Your task to perform on an android device: Search for pizza restaurants on Maps Image 0: 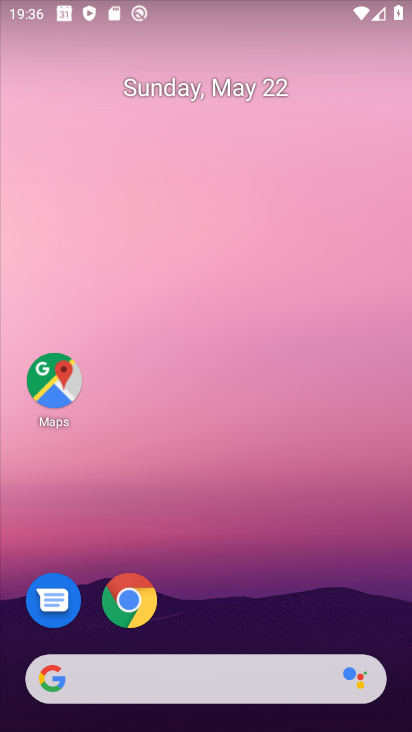
Step 0: drag from (230, 498) to (247, 15)
Your task to perform on an android device: Search for pizza restaurants on Maps Image 1: 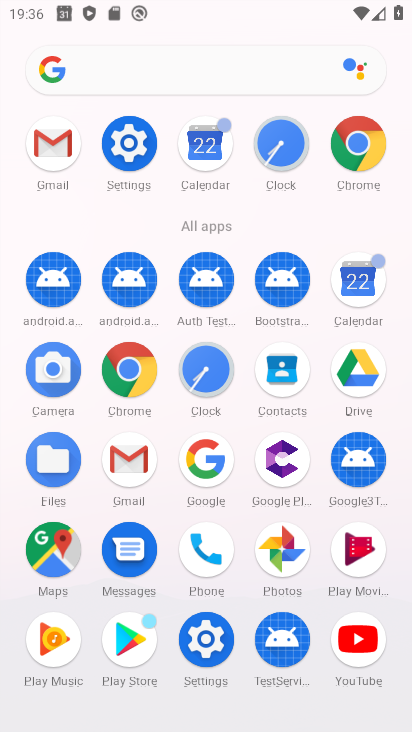
Step 1: click (50, 545)
Your task to perform on an android device: Search for pizza restaurants on Maps Image 2: 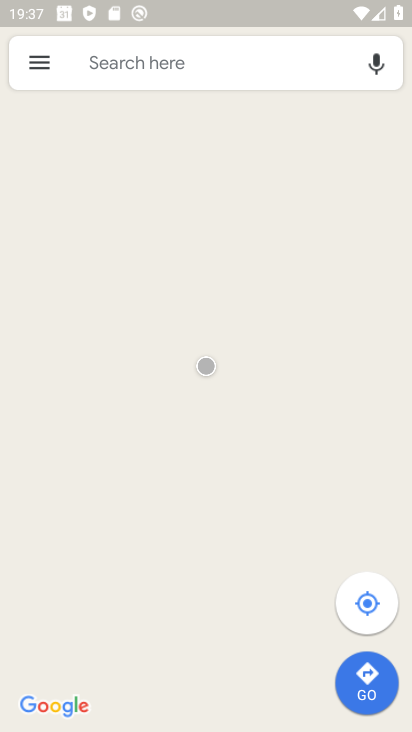
Step 2: click (205, 61)
Your task to perform on an android device: Search for pizza restaurants on Maps Image 3: 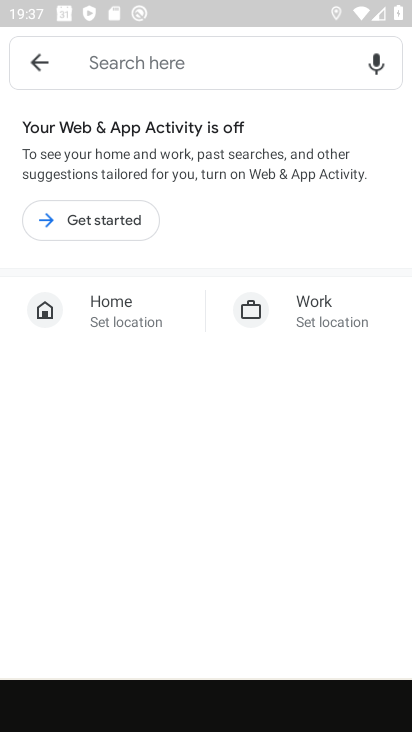
Step 3: click (205, 61)
Your task to perform on an android device: Search for pizza restaurants on Maps Image 4: 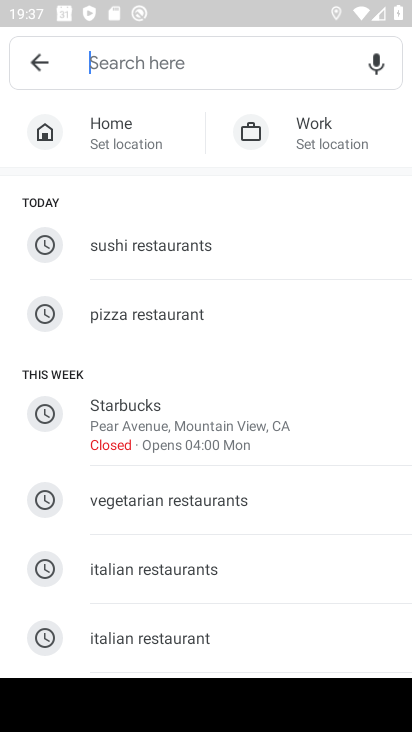
Step 4: type "pizza restaurants"
Your task to perform on an android device: Search for pizza restaurants on Maps Image 5: 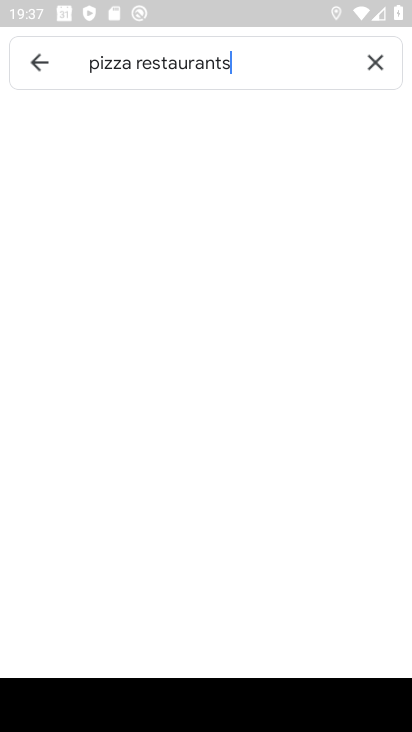
Step 5: type ""
Your task to perform on an android device: Search for pizza restaurants on Maps Image 6: 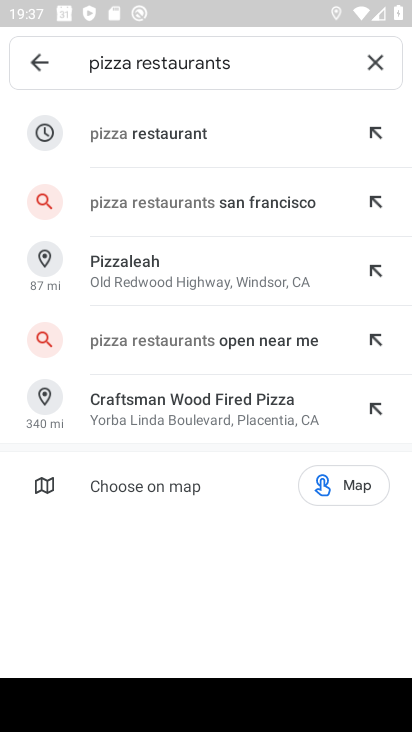
Step 6: click (197, 145)
Your task to perform on an android device: Search for pizza restaurants on Maps Image 7: 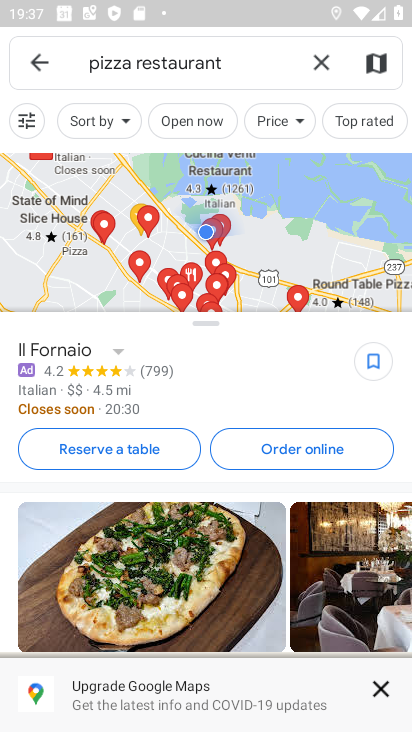
Step 7: task complete